Your task to perform on an android device: open app "Life360: Find Family & Friends" (install if not already installed) and enter user name: "gusts@gmail.com" and password: "assurers" Image 0: 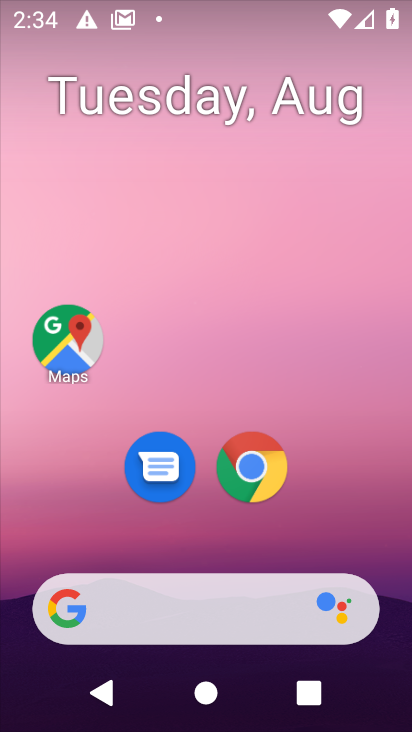
Step 0: drag from (249, 550) to (221, 137)
Your task to perform on an android device: open app "Life360: Find Family & Friends" (install if not already installed) and enter user name: "gusts@gmail.com" and password: "assurers" Image 1: 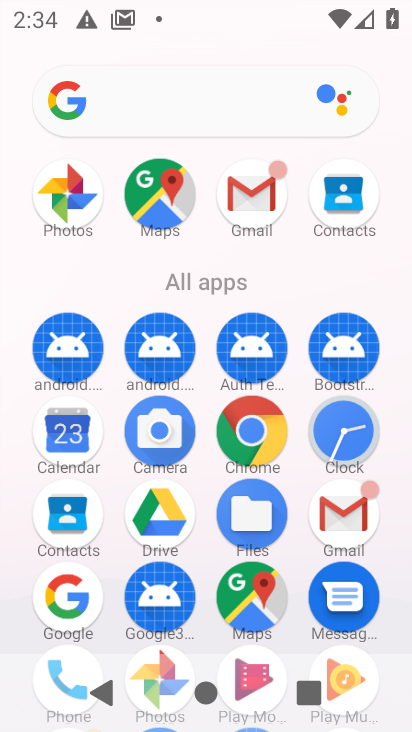
Step 1: task complete